Your task to perform on an android device: Turn on the flashlight Image 0: 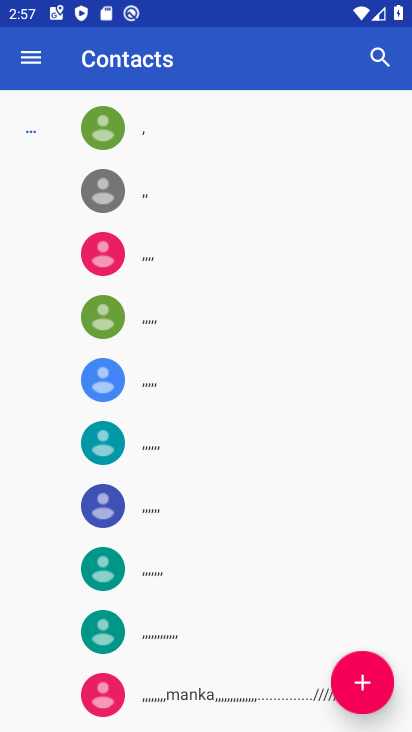
Step 0: press home button
Your task to perform on an android device: Turn on the flashlight Image 1: 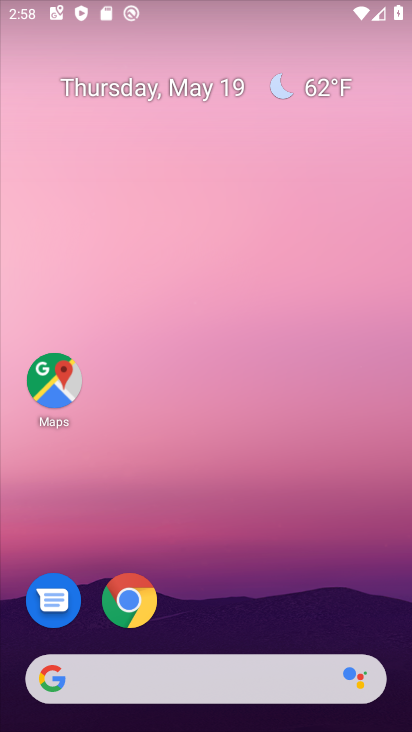
Step 1: drag from (37, 478) to (215, 112)
Your task to perform on an android device: Turn on the flashlight Image 2: 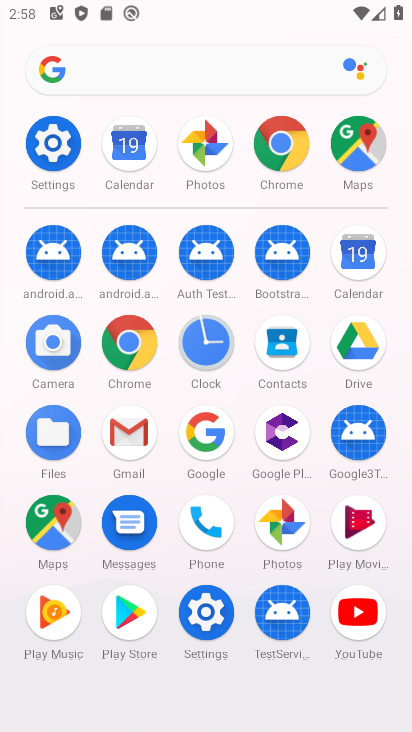
Step 2: click (60, 139)
Your task to perform on an android device: Turn on the flashlight Image 3: 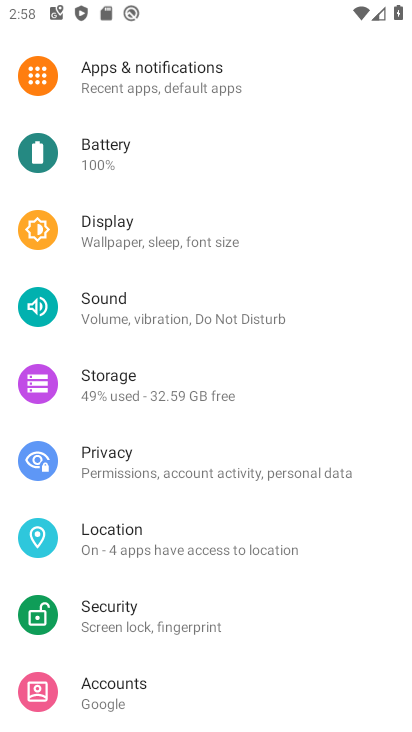
Step 3: click (193, 223)
Your task to perform on an android device: Turn on the flashlight Image 4: 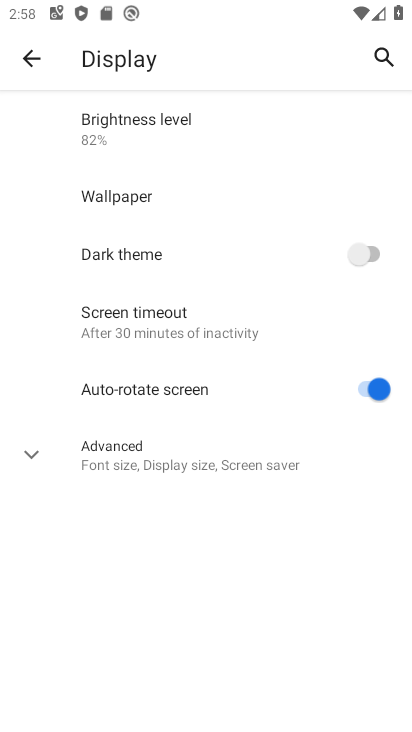
Step 4: task complete